Your task to perform on an android device: snooze an email in the gmail app Image 0: 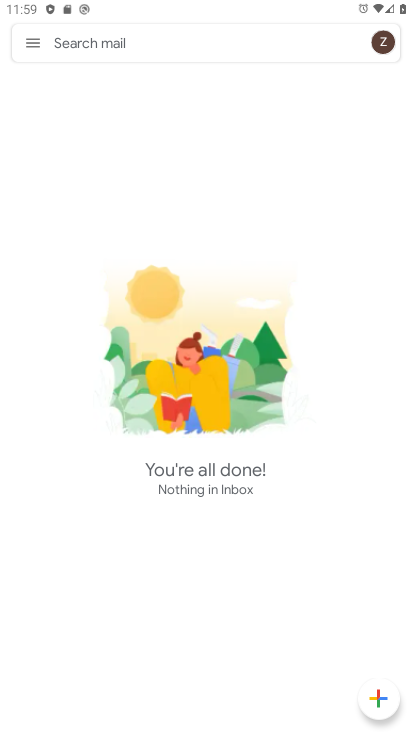
Step 0: press home button
Your task to perform on an android device: snooze an email in the gmail app Image 1: 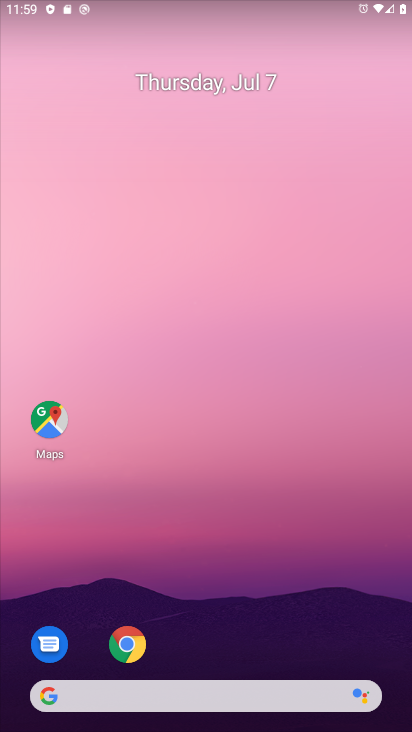
Step 1: drag from (231, 540) to (296, 15)
Your task to perform on an android device: snooze an email in the gmail app Image 2: 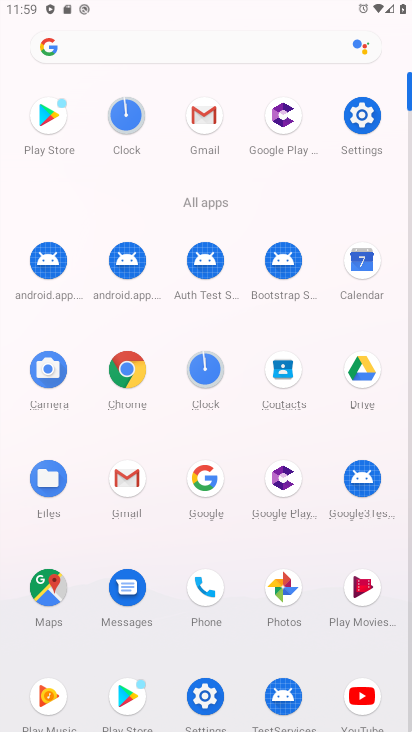
Step 2: click (218, 140)
Your task to perform on an android device: snooze an email in the gmail app Image 3: 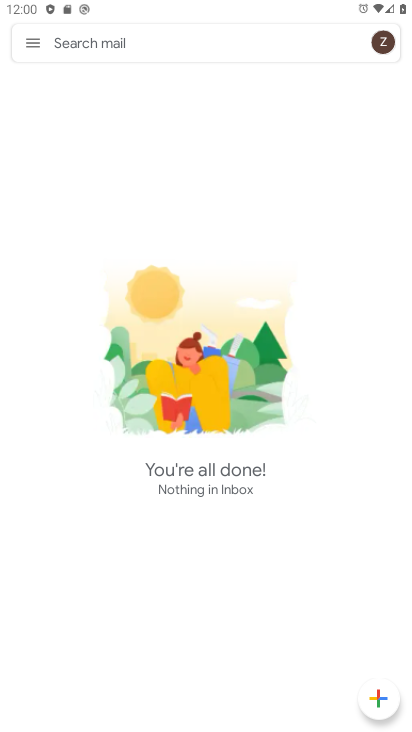
Step 3: click (34, 54)
Your task to perform on an android device: snooze an email in the gmail app Image 4: 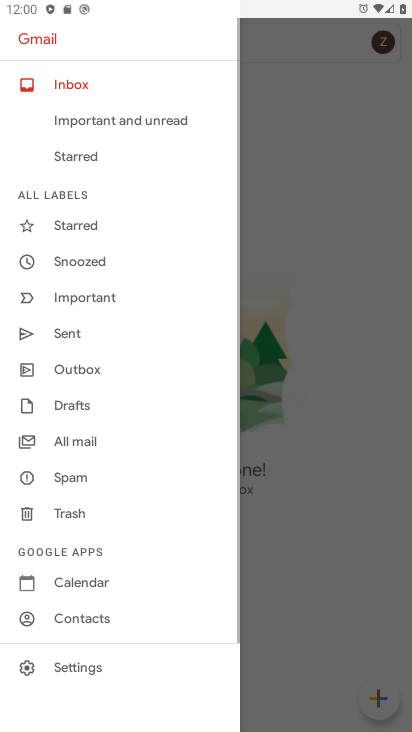
Step 4: task complete